Your task to perform on an android device: turn smart compose on in the gmail app Image 0: 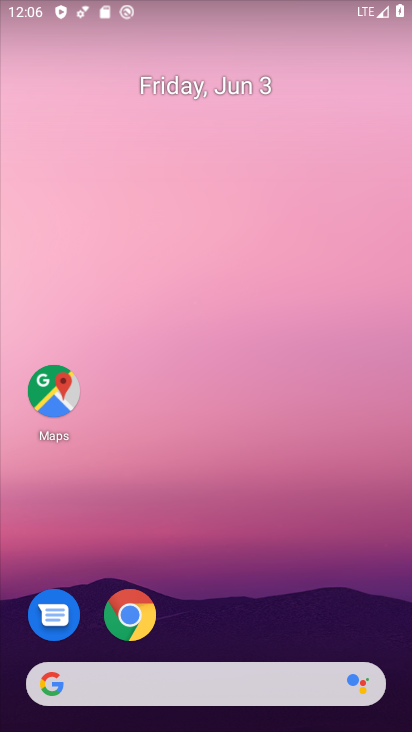
Step 0: drag from (278, 529) to (228, 4)
Your task to perform on an android device: turn smart compose on in the gmail app Image 1: 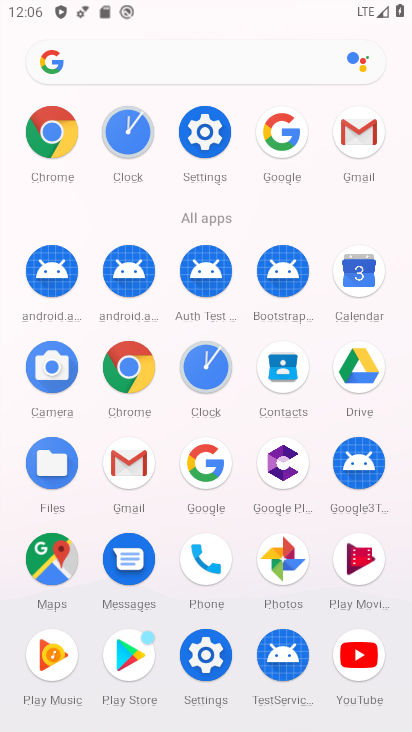
Step 1: click (362, 132)
Your task to perform on an android device: turn smart compose on in the gmail app Image 2: 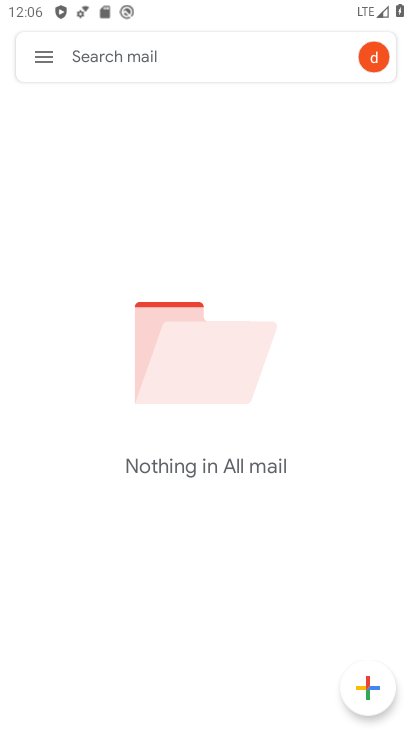
Step 2: click (44, 65)
Your task to perform on an android device: turn smart compose on in the gmail app Image 3: 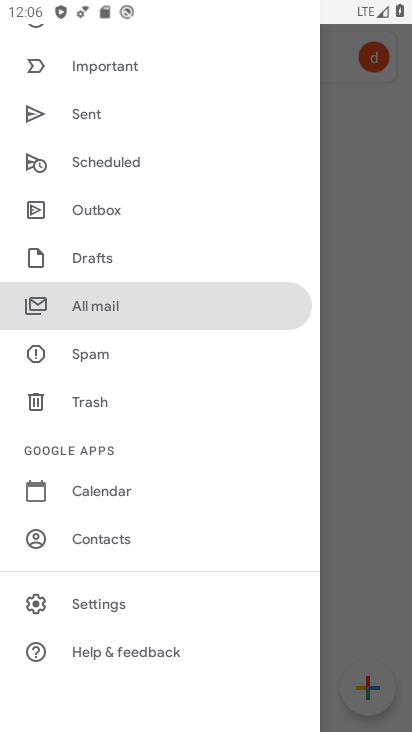
Step 3: click (214, 597)
Your task to perform on an android device: turn smart compose on in the gmail app Image 4: 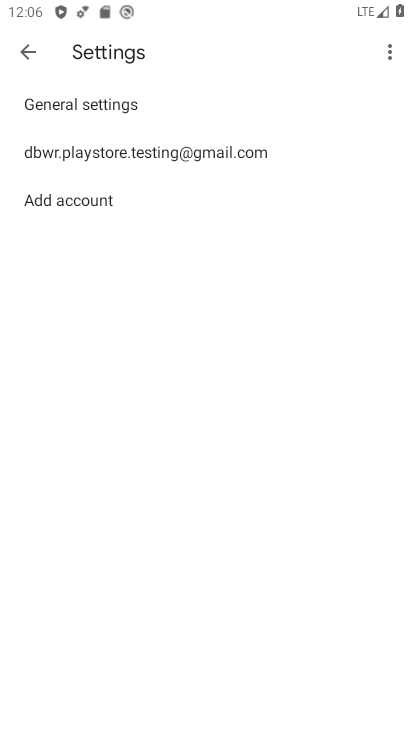
Step 4: click (141, 163)
Your task to perform on an android device: turn smart compose on in the gmail app Image 5: 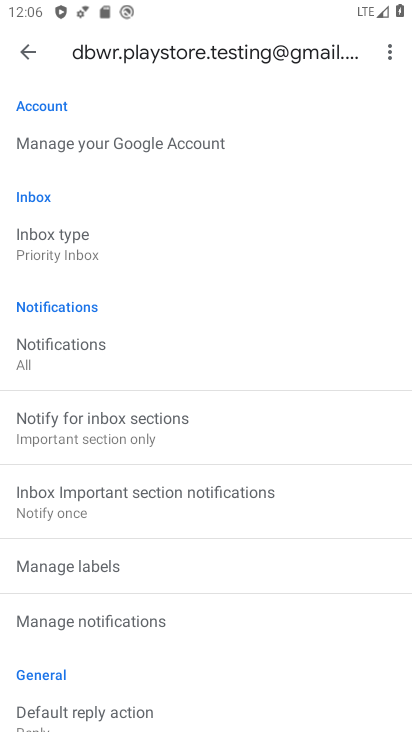
Step 5: task complete